Your task to perform on an android device: Show me popular games on the Play Store Image 0: 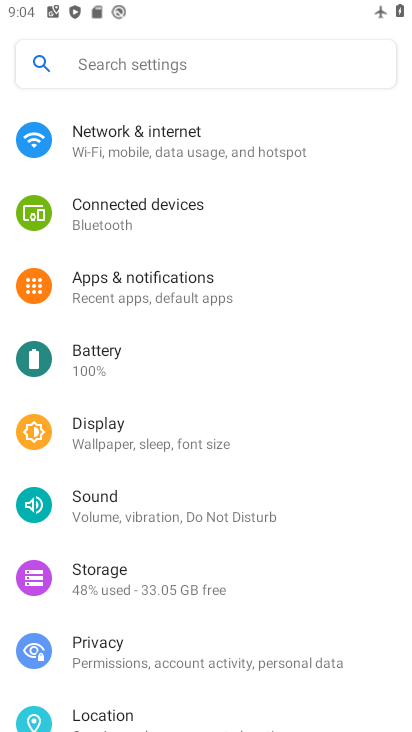
Step 0: press home button
Your task to perform on an android device: Show me popular games on the Play Store Image 1: 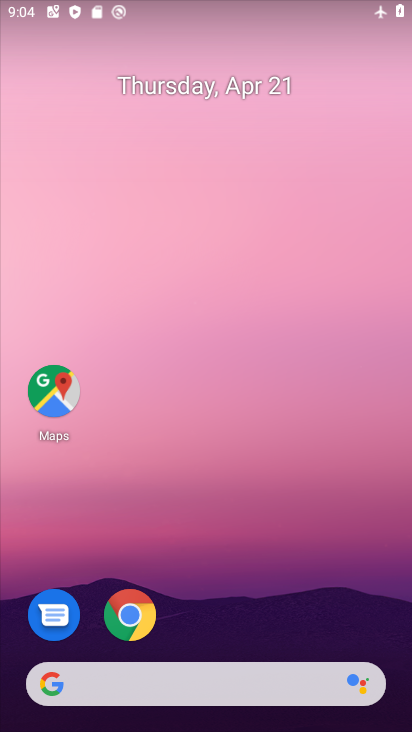
Step 1: drag from (207, 701) to (209, 215)
Your task to perform on an android device: Show me popular games on the Play Store Image 2: 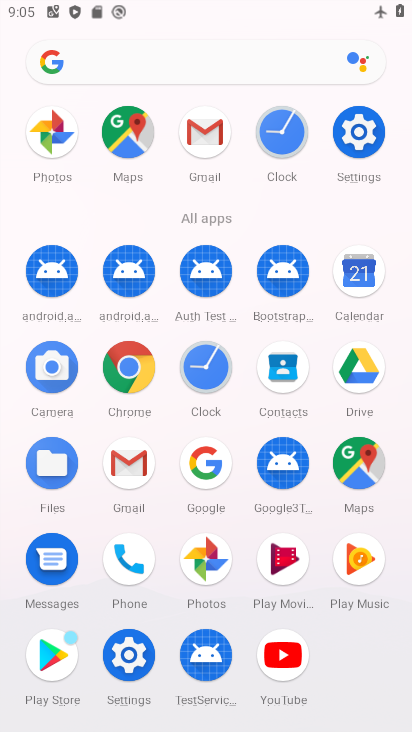
Step 2: click (57, 653)
Your task to perform on an android device: Show me popular games on the Play Store Image 3: 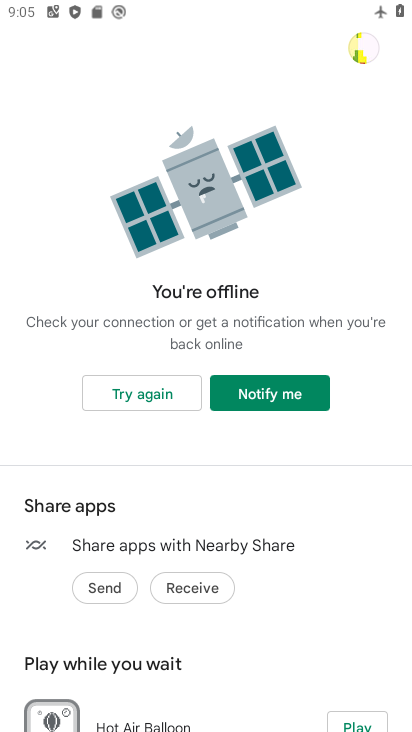
Step 3: click (150, 399)
Your task to perform on an android device: Show me popular games on the Play Store Image 4: 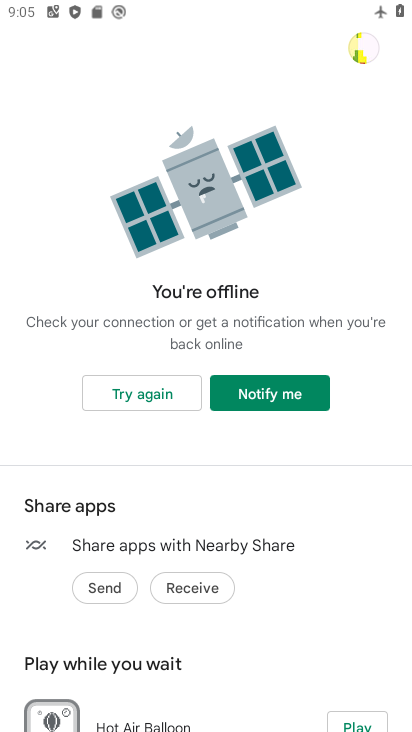
Step 4: click (145, 394)
Your task to perform on an android device: Show me popular games on the Play Store Image 5: 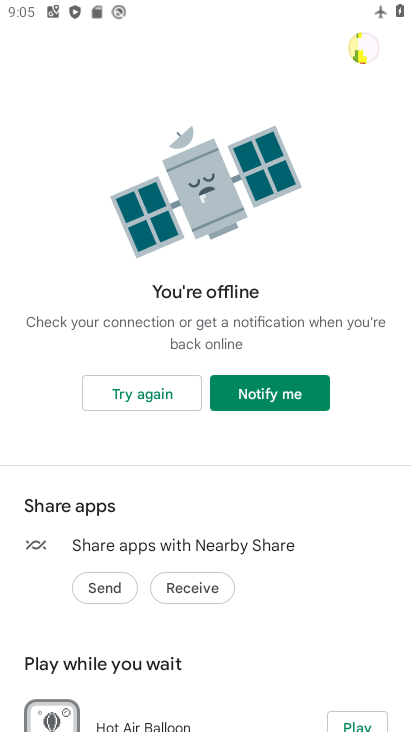
Step 5: task complete